Your task to perform on an android device: set an alarm Image 0: 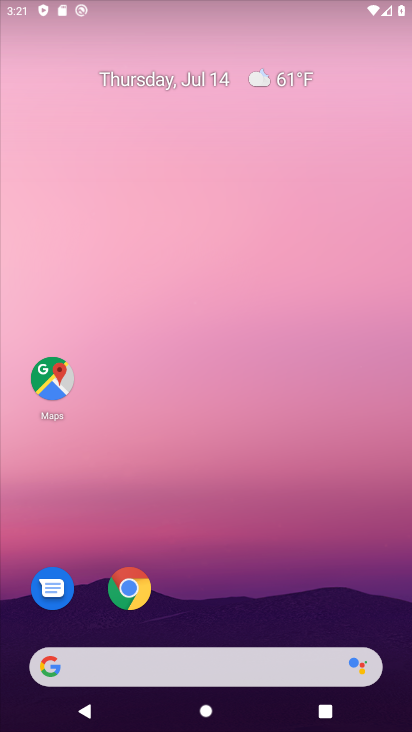
Step 0: press home button
Your task to perform on an android device: set an alarm Image 1: 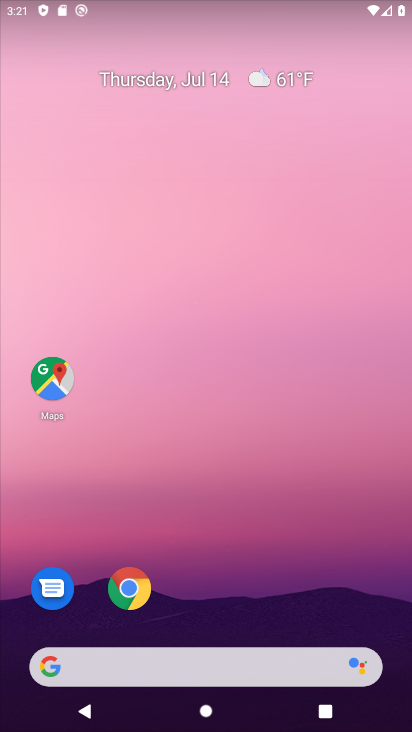
Step 1: drag from (285, 616) to (309, 19)
Your task to perform on an android device: set an alarm Image 2: 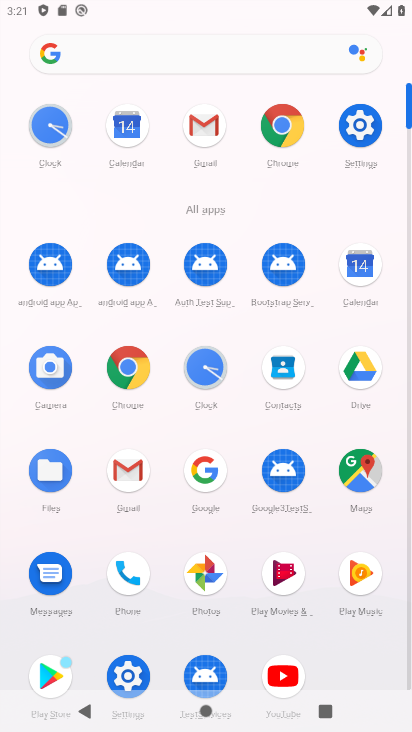
Step 2: click (208, 367)
Your task to perform on an android device: set an alarm Image 3: 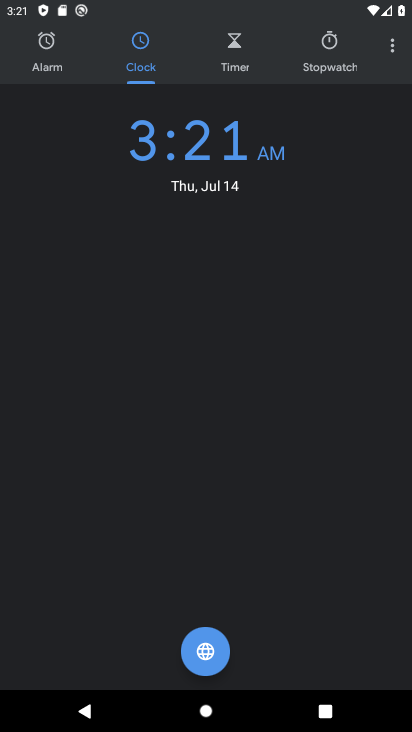
Step 3: click (50, 49)
Your task to perform on an android device: set an alarm Image 4: 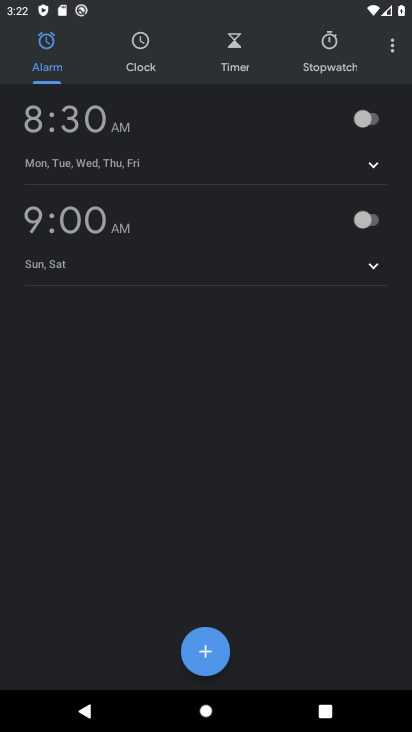
Step 4: click (208, 651)
Your task to perform on an android device: set an alarm Image 5: 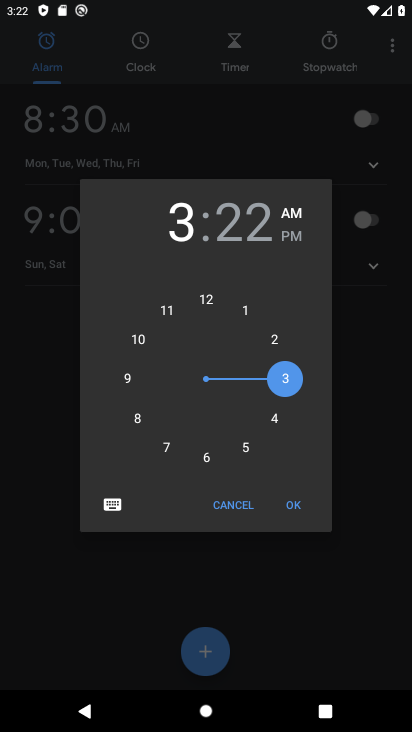
Step 5: click (134, 340)
Your task to perform on an android device: set an alarm Image 6: 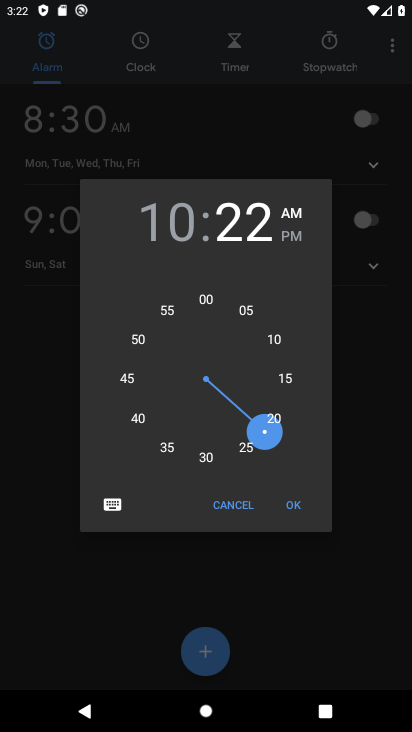
Step 6: click (203, 459)
Your task to perform on an android device: set an alarm Image 7: 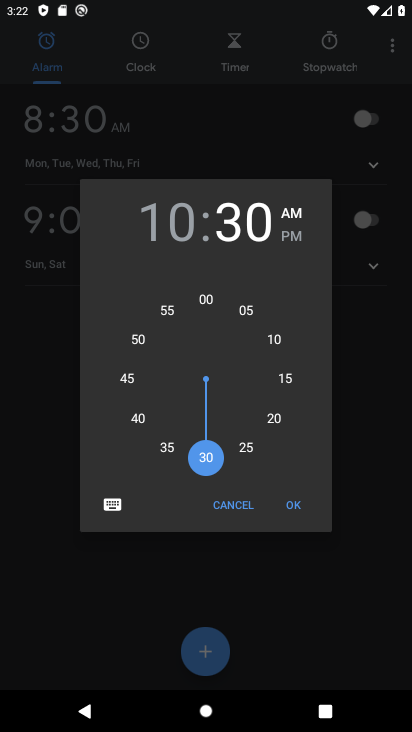
Step 7: click (289, 500)
Your task to perform on an android device: set an alarm Image 8: 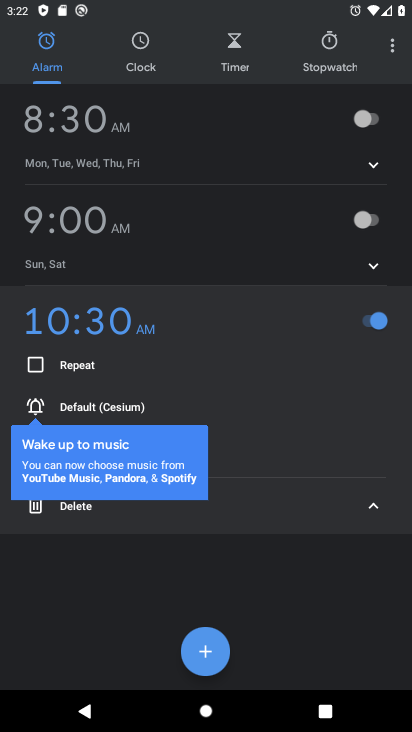
Step 8: task complete